Your task to perform on an android device: turn smart compose on in the gmail app Image 0: 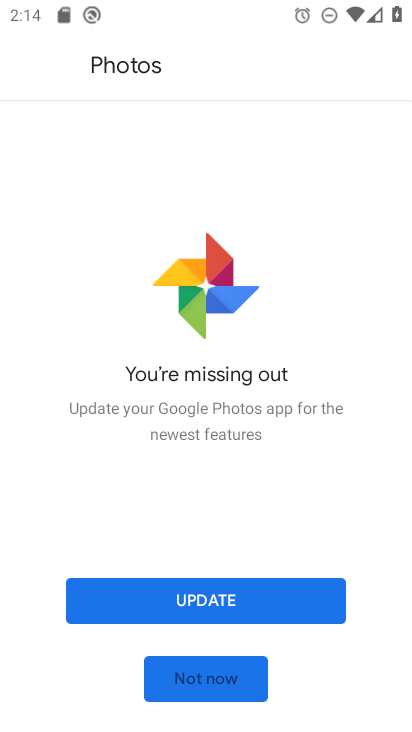
Step 0: press home button
Your task to perform on an android device: turn smart compose on in the gmail app Image 1: 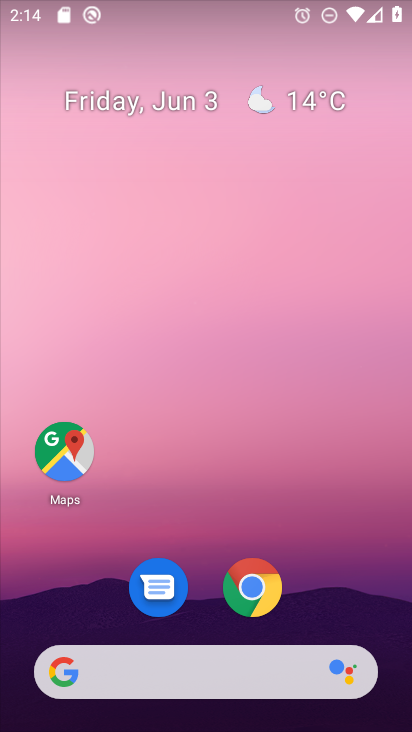
Step 1: drag from (343, 596) to (277, 36)
Your task to perform on an android device: turn smart compose on in the gmail app Image 2: 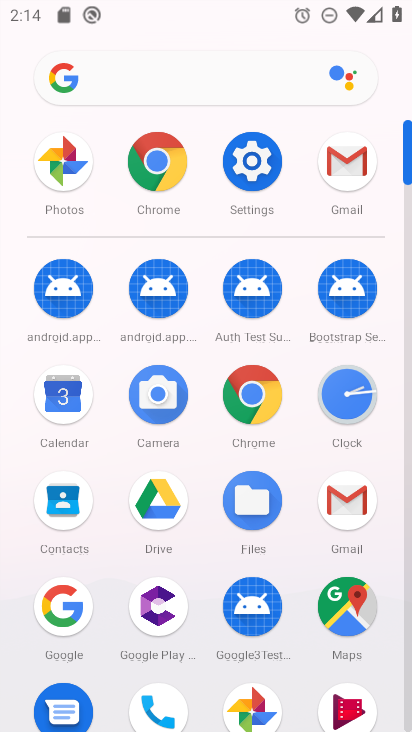
Step 2: click (337, 164)
Your task to perform on an android device: turn smart compose on in the gmail app Image 3: 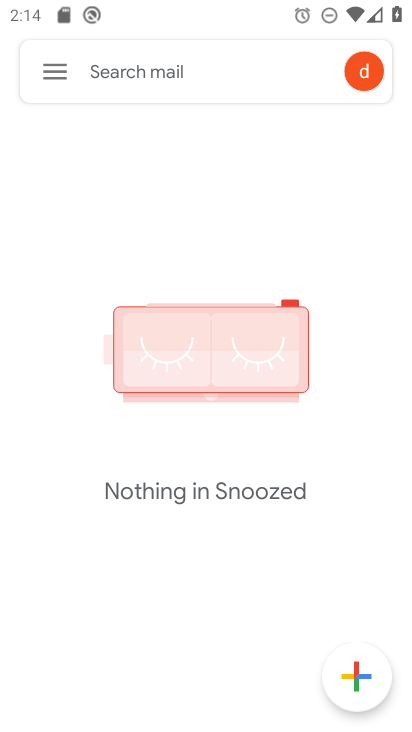
Step 3: click (40, 73)
Your task to perform on an android device: turn smart compose on in the gmail app Image 4: 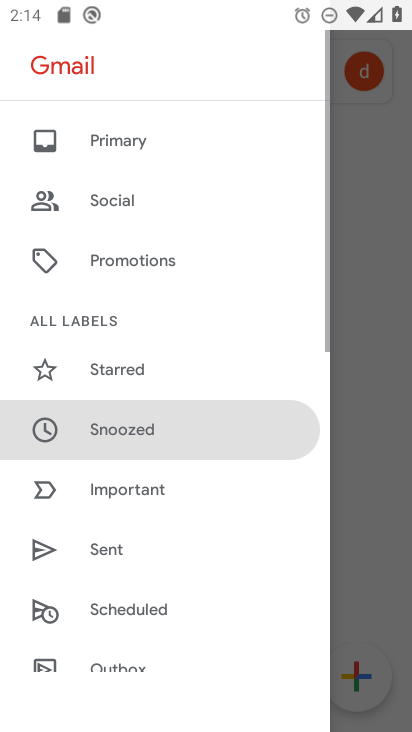
Step 4: drag from (202, 613) to (209, 153)
Your task to perform on an android device: turn smart compose on in the gmail app Image 5: 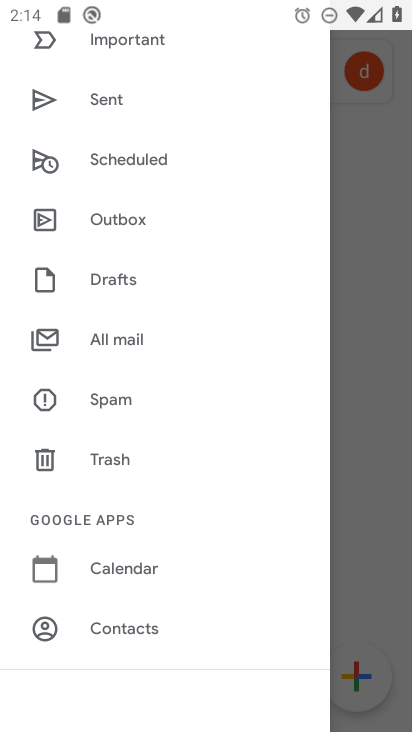
Step 5: drag from (127, 625) to (81, 248)
Your task to perform on an android device: turn smart compose on in the gmail app Image 6: 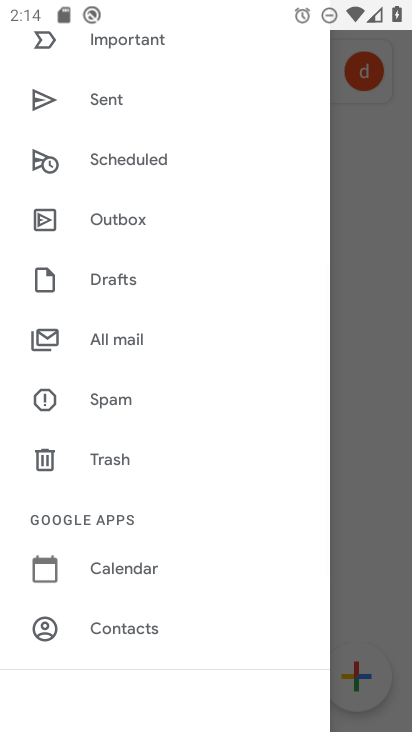
Step 6: drag from (120, 603) to (122, 269)
Your task to perform on an android device: turn smart compose on in the gmail app Image 7: 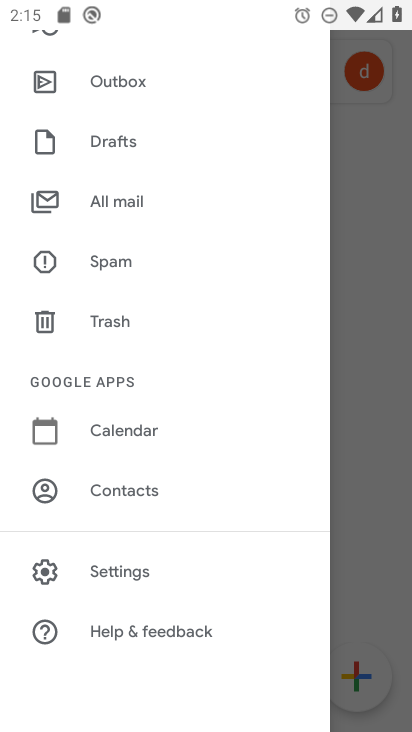
Step 7: click (162, 577)
Your task to perform on an android device: turn smart compose on in the gmail app Image 8: 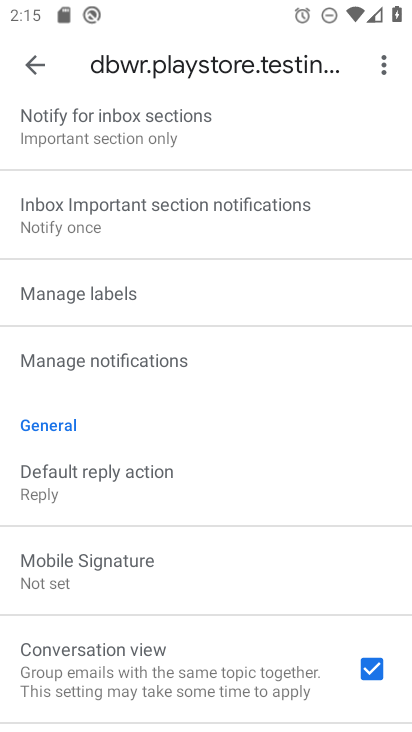
Step 8: task complete